Your task to perform on an android device: Show me productivity apps on the Play Store Image 0: 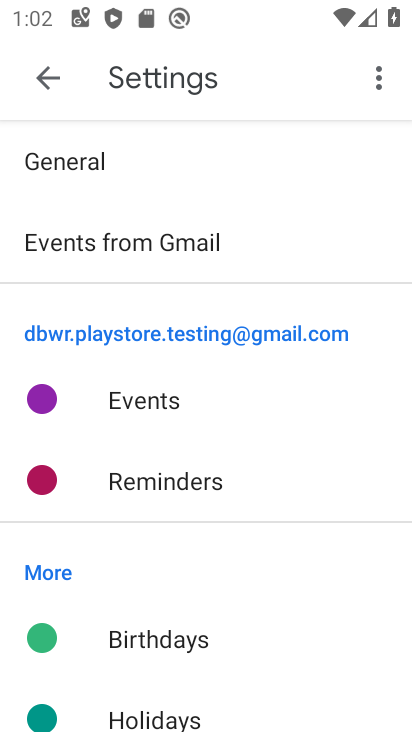
Step 0: press home button
Your task to perform on an android device: Show me productivity apps on the Play Store Image 1: 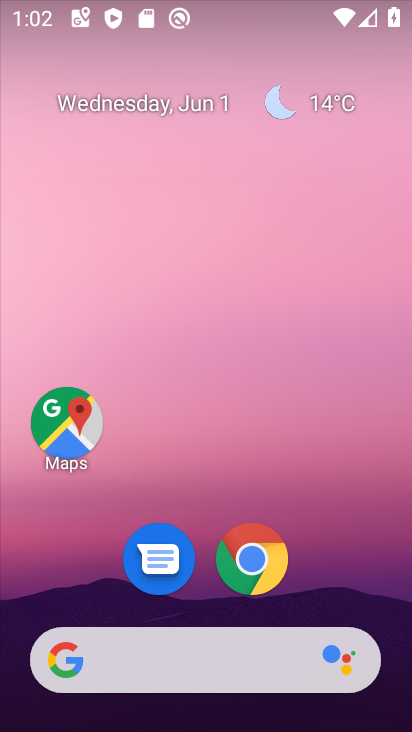
Step 1: drag from (390, 621) to (352, 182)
Your task to perform on an android device: Show me productivity apps on the Play Store Image 2: 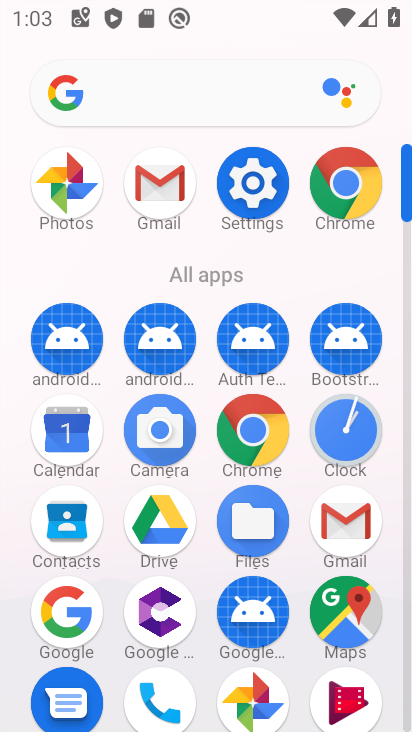
Step 2: drag from (209, 681) to (202, 199)
Your task to perform on an android device: Show me productivity apps on the Play Store Image 3: 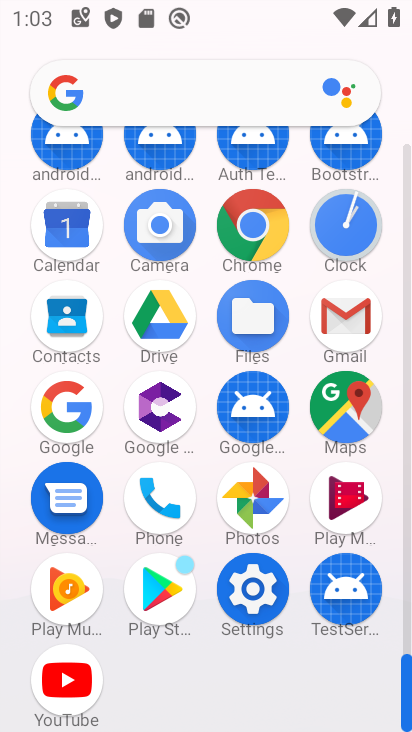
Step 3: click (156, 594)
Your task to perform on an android device: Show me productivity apps on the Play Store Image 4: 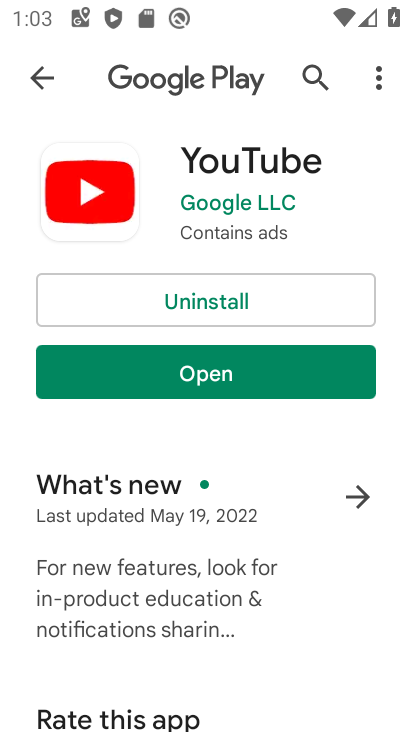
Step 4: click (29, 76)
Your task to perform on an android device: Show me productivity apps on the Play Store Image 5: 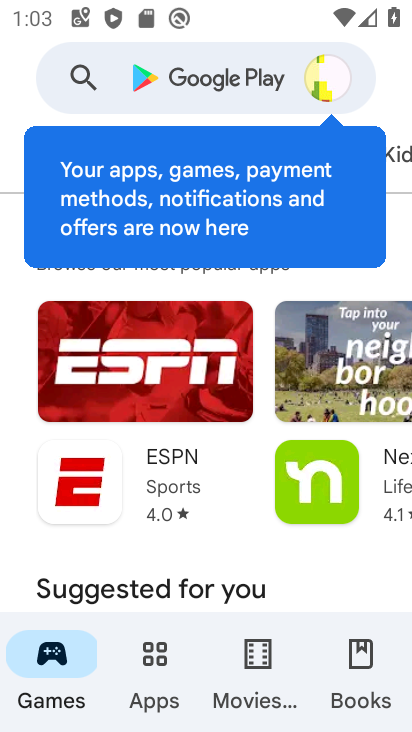
Step 5: click (215, 84)
Your task to perform on an android device: Show me productivity apps on the Play Store Image 6: 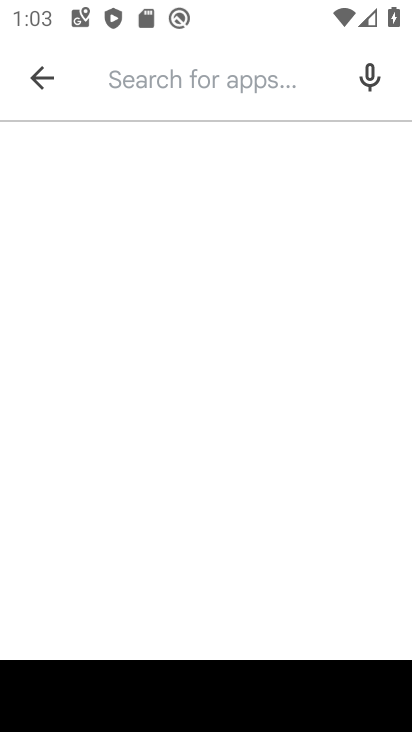
Step 6: type "productivity apps"
Your task to perform on an android device: Show me productivity apps on the Play Store Image 7: 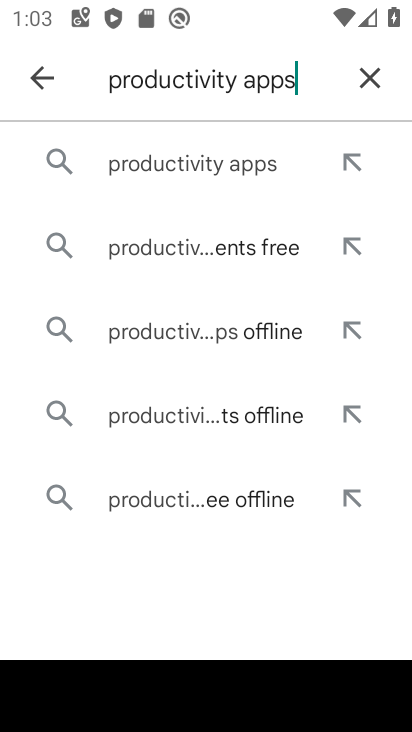
Step 7: click (224, 156)
Your task to perform on an android device: Show me productivity apps on the Play Store Image 8: 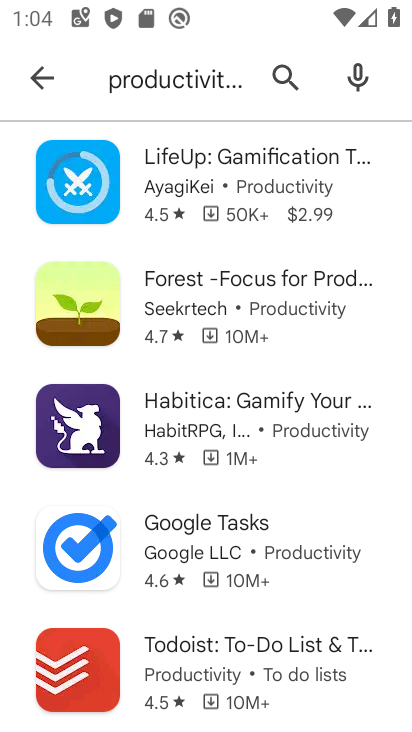
Step 8: task complete